Your task to perform on an android device: Check the news Image 0: 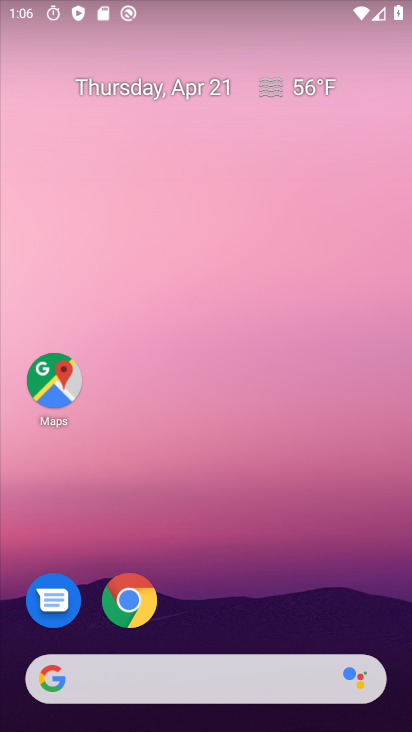
Step 0: drag from (374, 628) to (335, 192)
Your task to perform on an android device: Check the news Image 1: 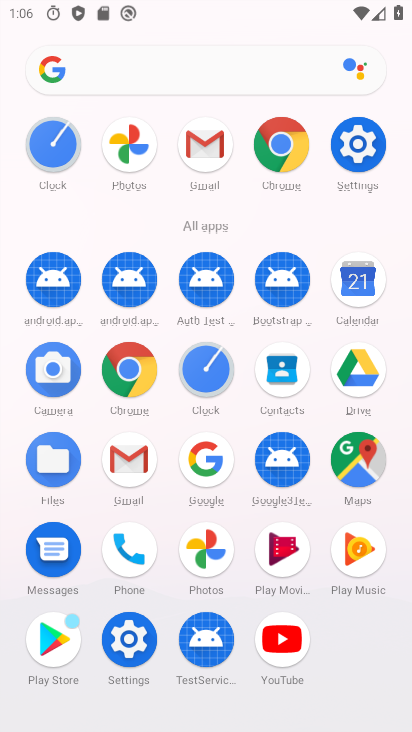
Step 1: task complete